Your task to perform on an android device: add a label to a message in the gmail app Image 0: 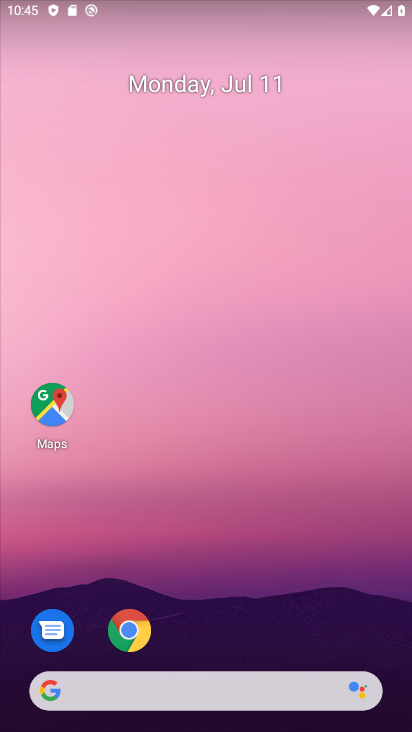
Step 0: drag from (215, 647) to (238, 29)
Your task to perform on an android device: add a label to a message in the gmail app Image 1: 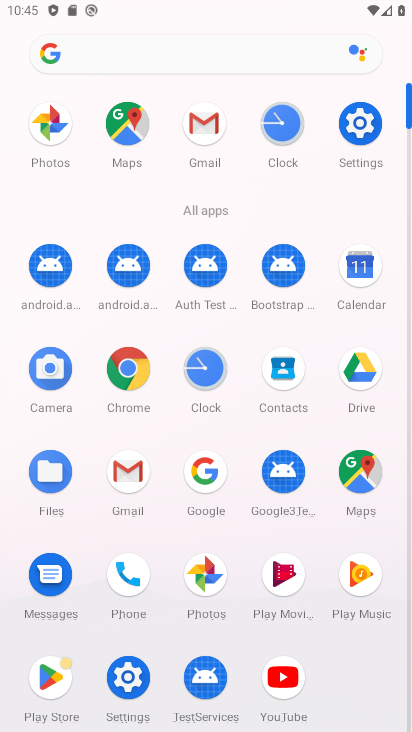
Step 1: click (130, 478)
Your task to perform on an android device: add a label to a message in the gmail app Image 2: 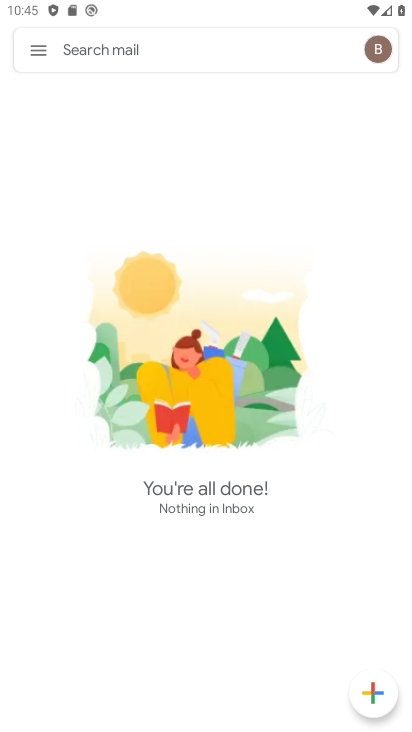
Step 2: task complete